Your task to perform on an android device: Open the web browser Image 0: 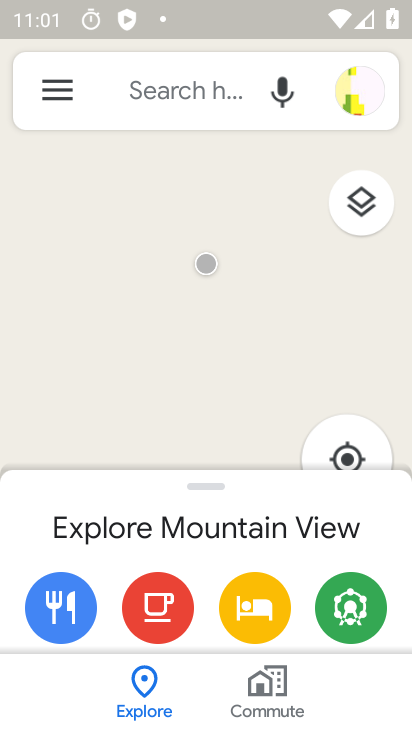
Step 0: press home button
Your task to perform on an android device: Open the web browser Image 1: 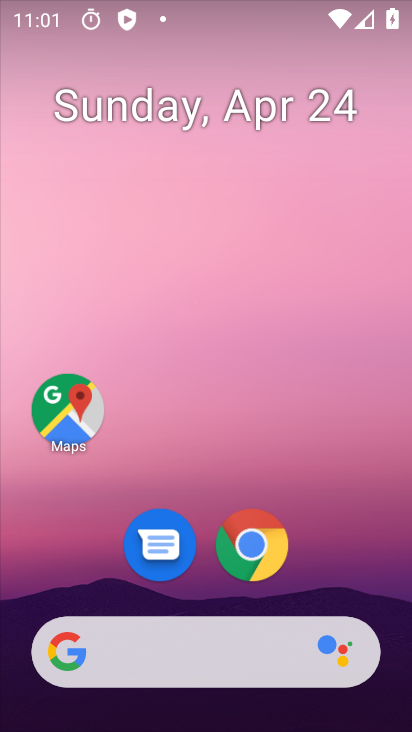
Step 1: drag from (285, 681) to (286, 98)
Your task to perform on an android device: Open the web browser Image 2: 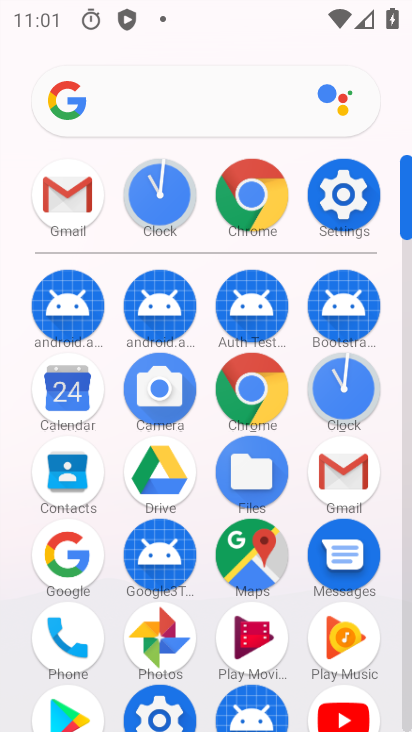
Step 2: click (259, 192)
Your task to perform on an android device: Open the web browser Image 3: 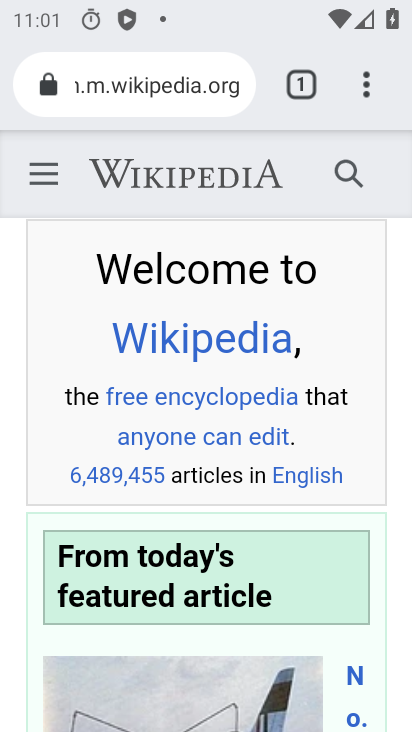
Step 3: click (178, 86)
Your task to perform on an android device: Open the web browser Image 4: 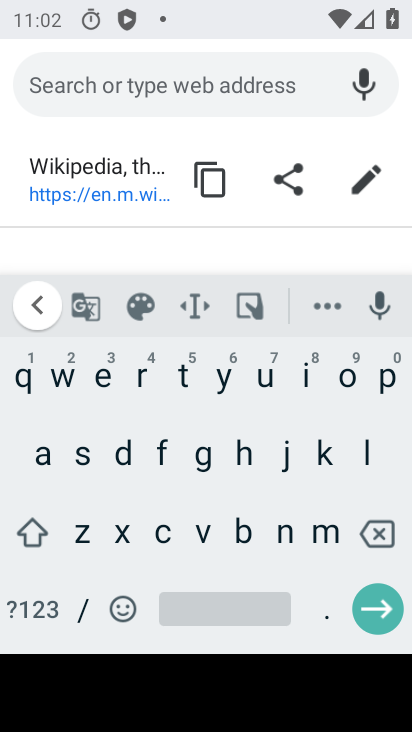
Step 4: task complete